Your task to perform on an android device: Open Android settings Image 0: 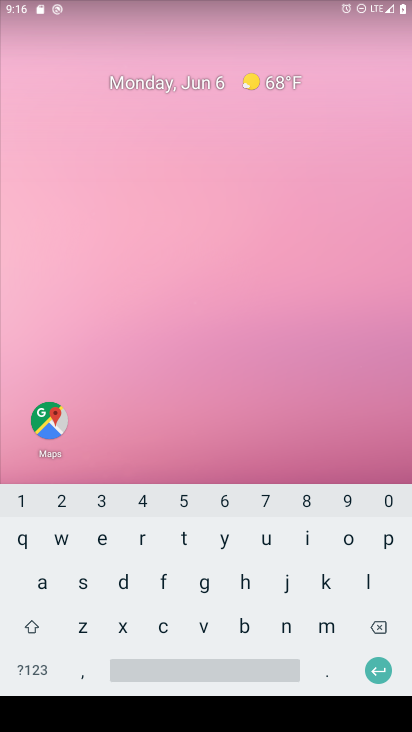
Step 0: press home button
Your task to perform on an android device: Open Android settings Image 1: 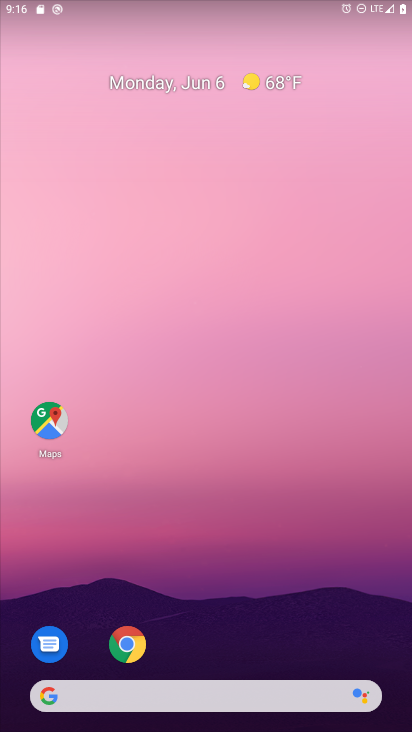
Step 1: drag from (217, 702) to (176, 116)
Your task to perform on an android device: Open Android settings Image 2: 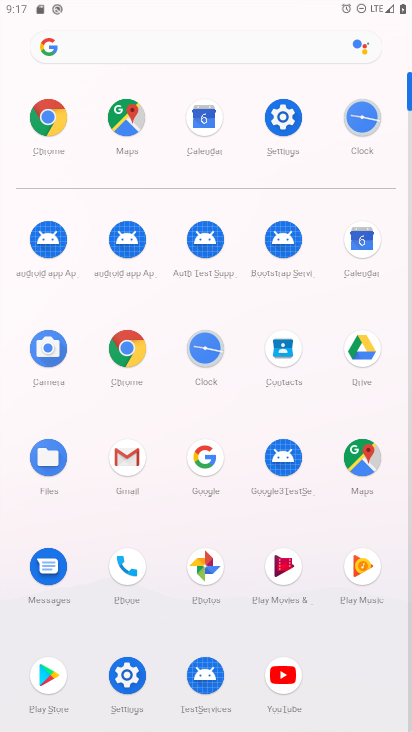
Step 2: click (279, 113)
Your task to perform on an android device: Open Android settings Image 3: 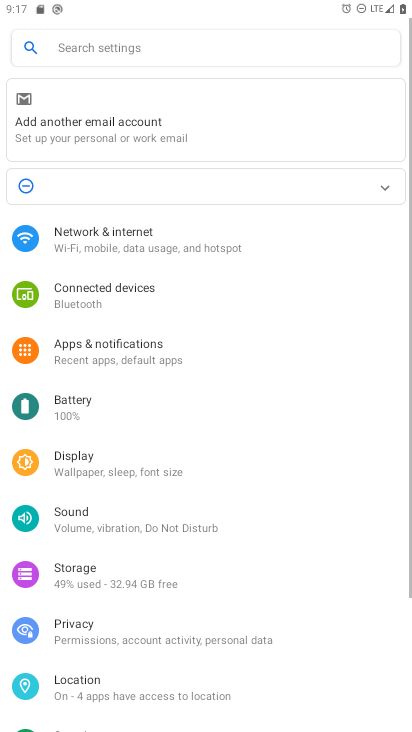
Step 3: click (121, 53)
Your task to perform on an android device: Open Android settings Image 4: 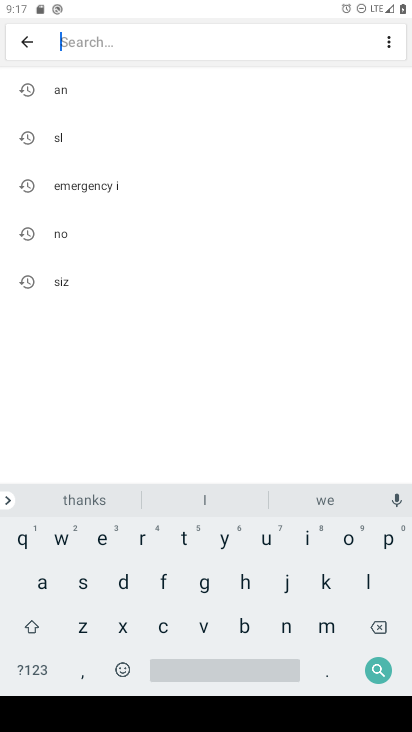
Step 4: click (38, 584)
Your task to perform on an android device: Open Android settings Image 5: 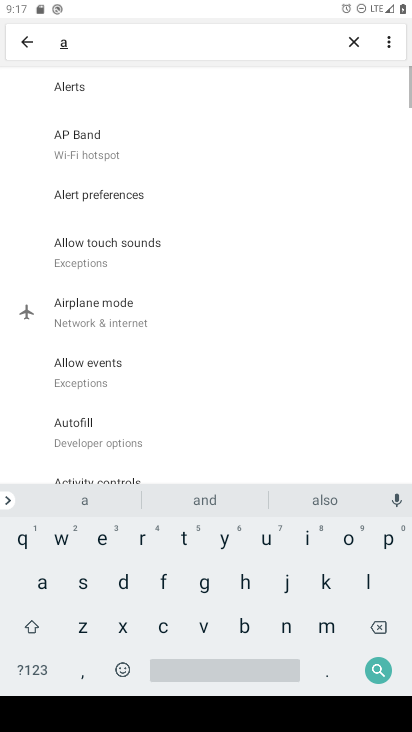
Step 5: click (284, 621)
Your task to perform on an android device: Open Android settings Image 6: 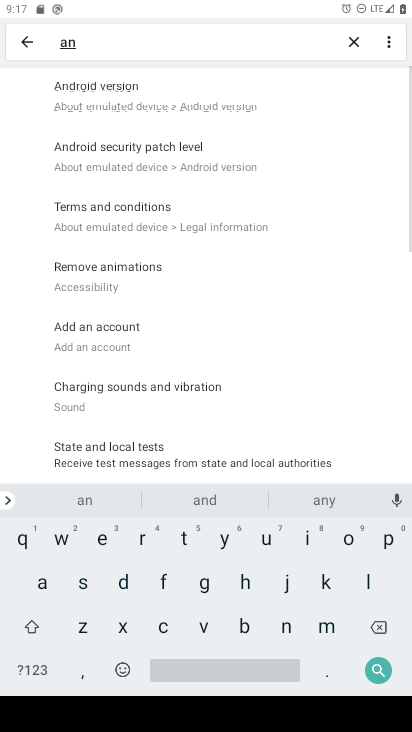
Step 6: click (139, 93)
Your task to perform on an android device: Open Android settings Image 7: 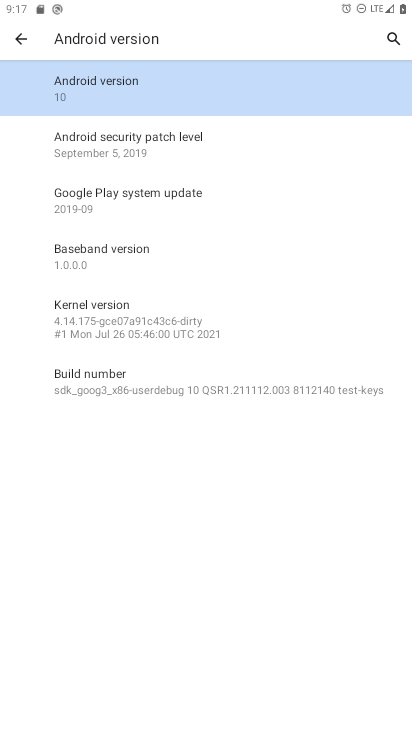
Step 7: click (192, 91)
Your task to perform on an android device: Open Android settings Image 8: 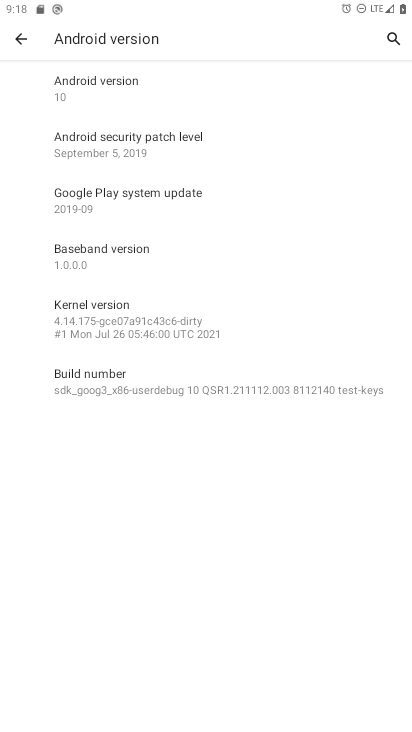
Step 8: task complete